Your task to perform on an android device: Open Yahoo.com Image 0: 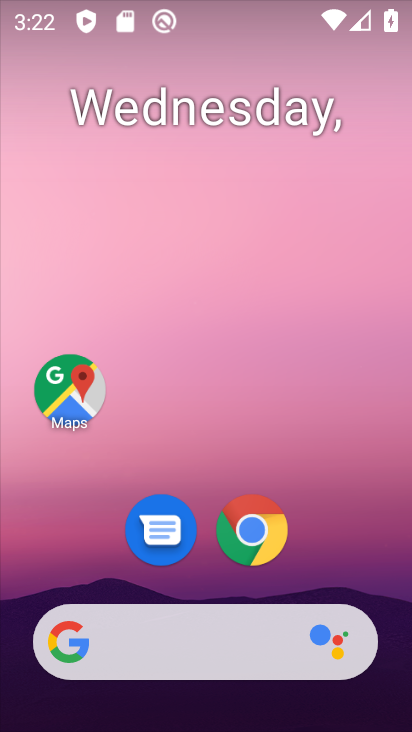
Step 0: click (204, 645)
Your task to perform on an android device: Open Yahoo.com Image 1: 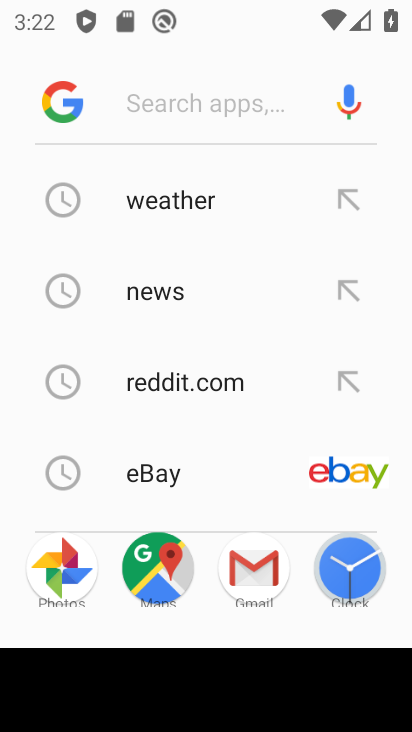
Step 1: type "Yahoo.com"
Your task to perform on an android device: Open Yahoo.com Image 2: 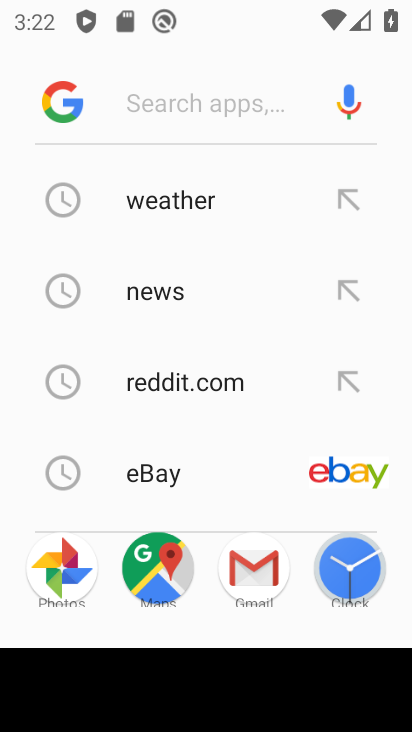
Step 2: click (162, 97)
Your task to perform on an android device: Open Yahoo.com Image 3: 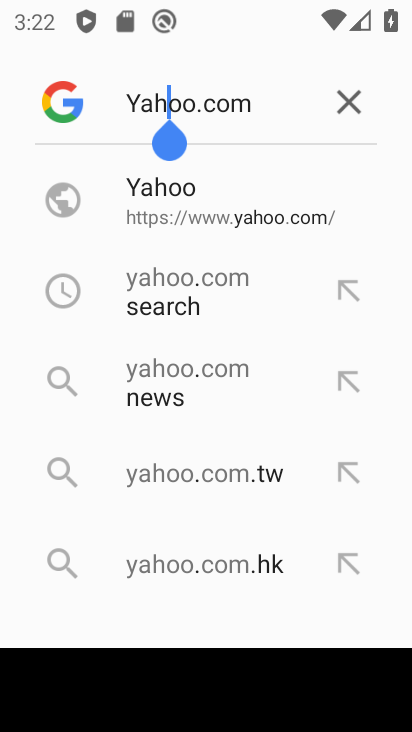
Step 3: click (162, 198)
Your task to perform on an android device: Open Yahoo.com Image 4: 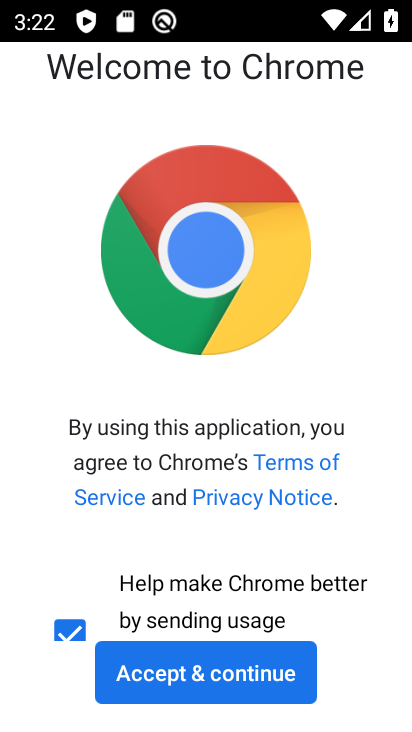
Step 4: click (217, 693)
Your task to perform on an android device: Open Yahoo.com Image 5: 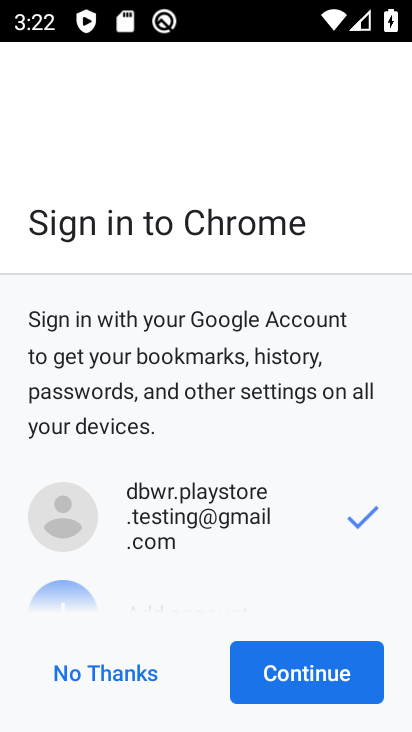
Step 5: click (319, 665)
Your task to perform on an android device: Open Yahoo.com Image 6: 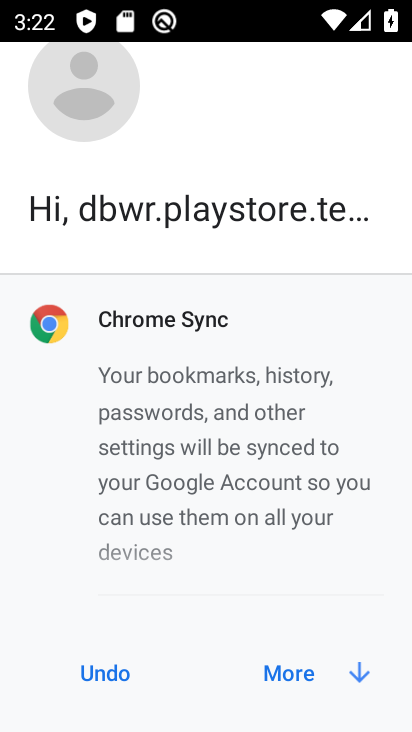
Step 6: click (362, 674)
Your task to perform on an android device: Open Yahoo.com Image 7: 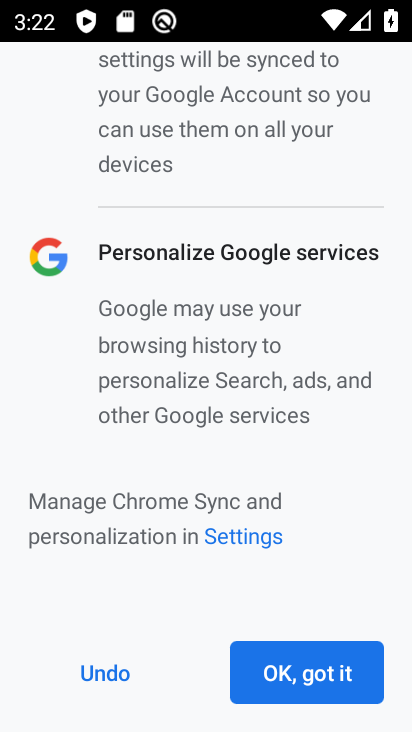
Step 7: click (362, 674)
Your task to perform on an android device: Open Yahoo.com Image 8: 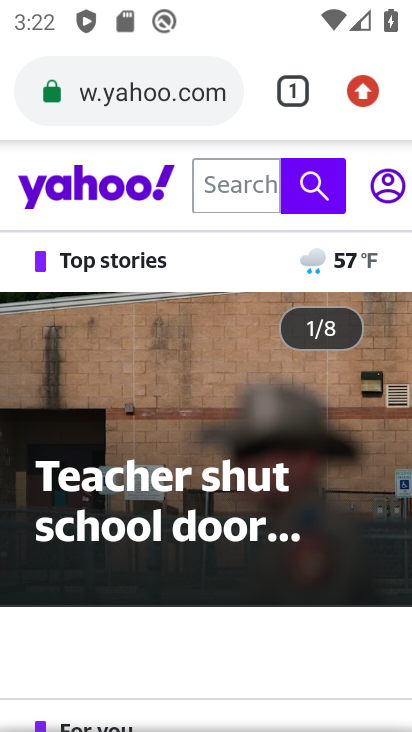
Step 8: task complete